Your task to perform on an android device: set default search engine in the chrome app Image 0: 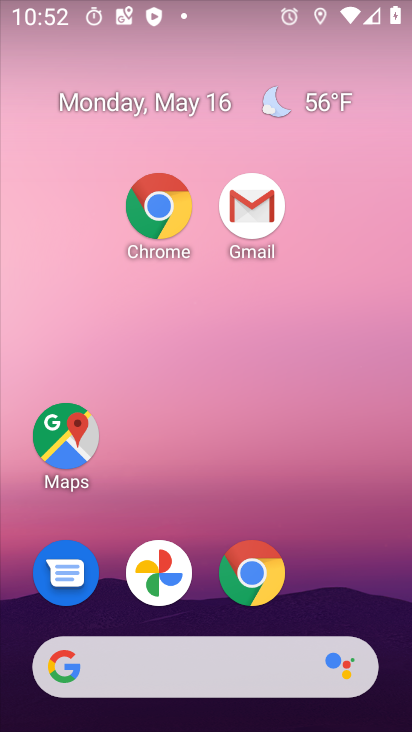
Step 0: drag from (315, 617) to (119, 198)
Your task to perform on an android device: set default search engine in the chrome app Image 1: 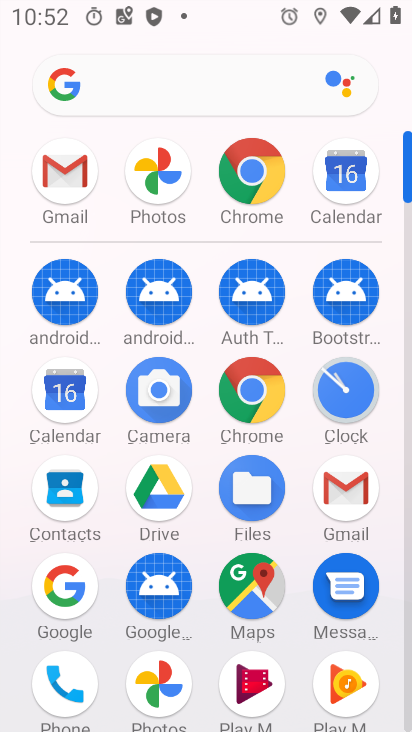
Step 1: click (252, 166)
Your task to perform on an android device: set default search engine in the chrome app Image 2: 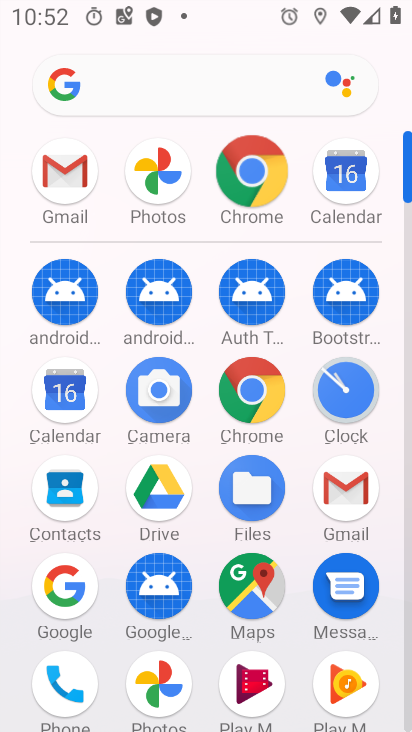
Step 2: click (252, 165)
Your task to perform on an android device: set default search engine in the chrome app Image 3: 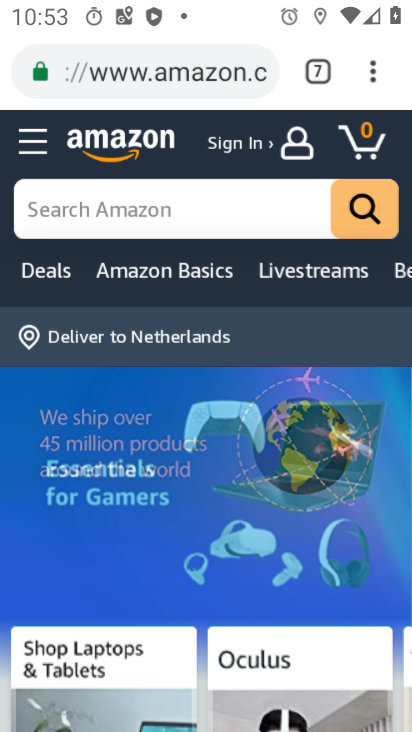
Step 3: drag from (366, 76) to (134, 570)
Your task to perform on an android device: set default search engine in the chrome app Image 4: 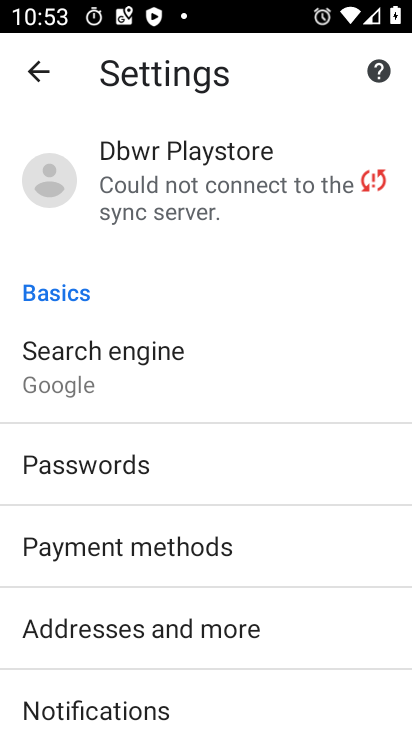
Step 4: drag from (126, 554) to (58, 149)
Your task to perform on an android device: set default search engine in the chrome app Image 5: 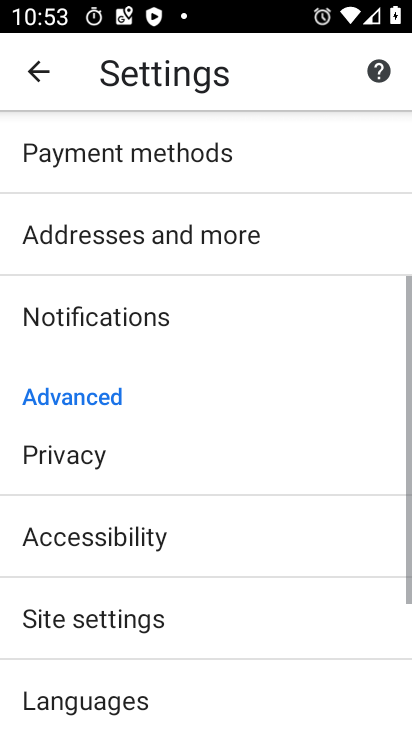
Step 5: drag from (102, 466) to (88, 84)
Your task to perform on an android device: set default search engine in the chrome app Image 6: 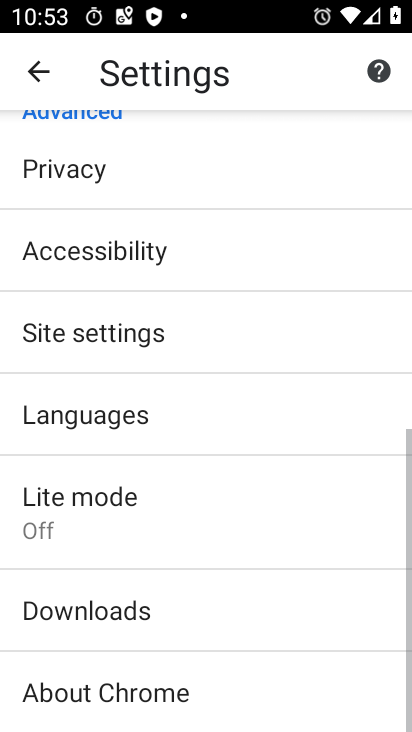
Step 6: drag from (195, 550) to (148, 160)
Your task to perform on an android device: set default search engine in the chrome app Image 7: 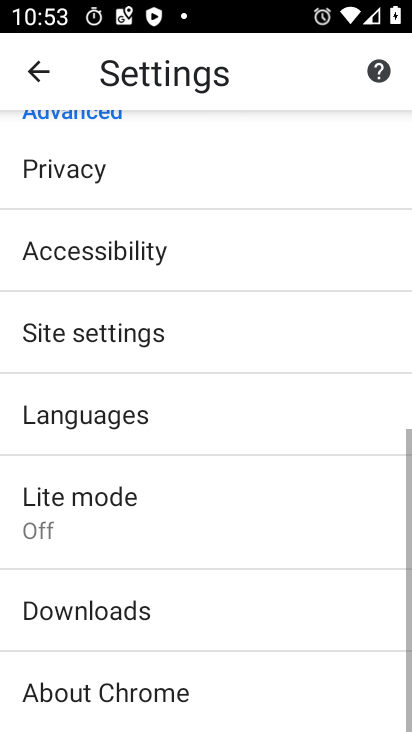
Step 7: drag from (163, 309) to (191, 102)
Your task to perform on an android device: set default search engine in the chrome app Image 8: 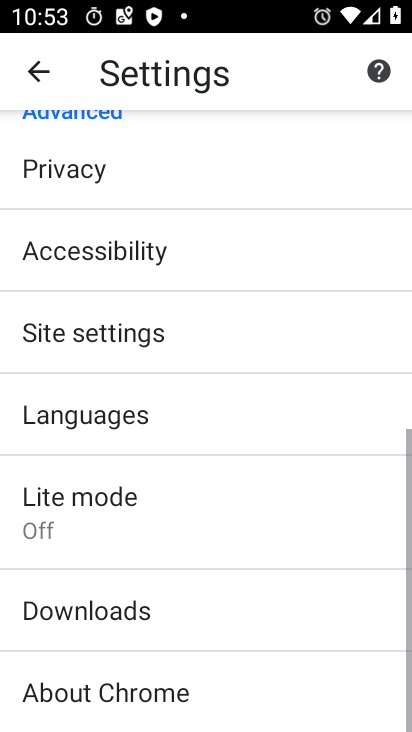
Step 8: drag from (79, 257) to (124, 138)
Your task to perform on an android device: set default search engine in the chrome app Image 9: 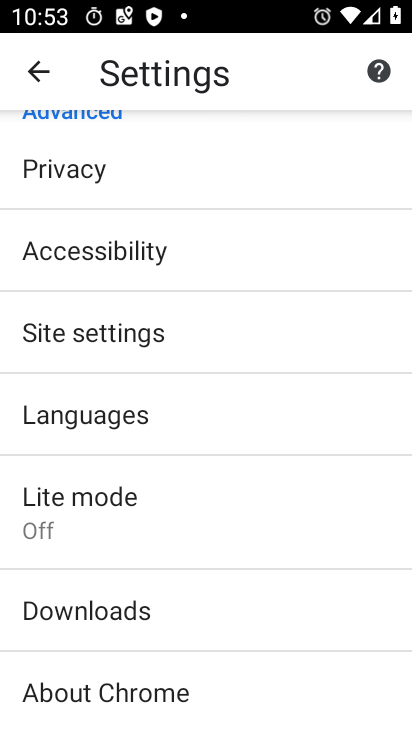
Step 9: click (70, 332)
Your task to perform on an android device: set default search engine in the chrome app Image 10: 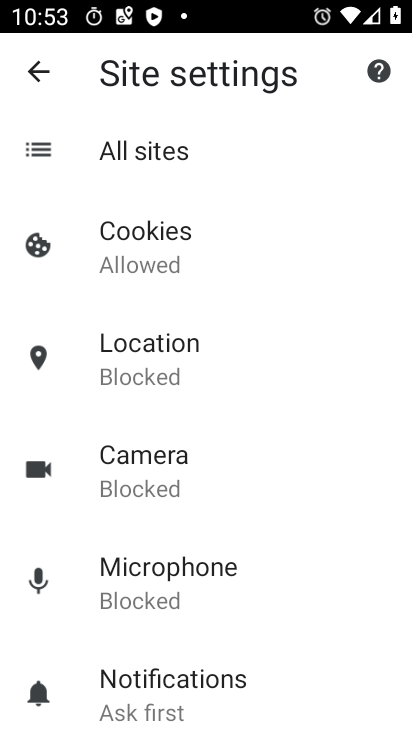
Step 10: click (39, 51)
Your task to perform on an android device: set default search engine in the chrome app Image 11: 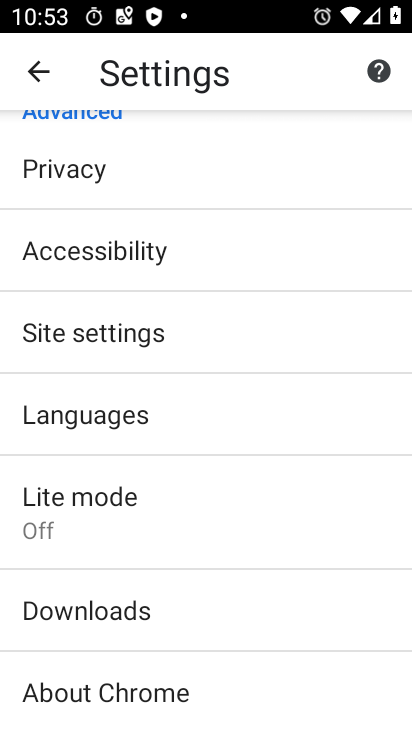
Step 11: drag from (75, 196) to (59, 684)
Your task to perform on an android device: set default search engine in the chrome app Image 12: 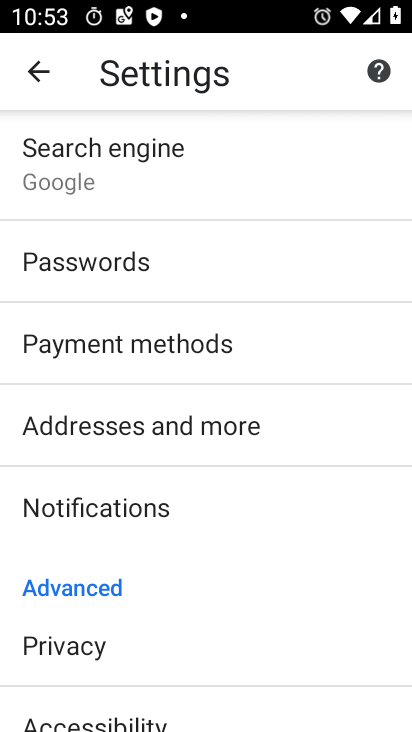
Step 12: click (67, 155)
Your task to perform on an android device: set default search engine in the chrome app Image 13: 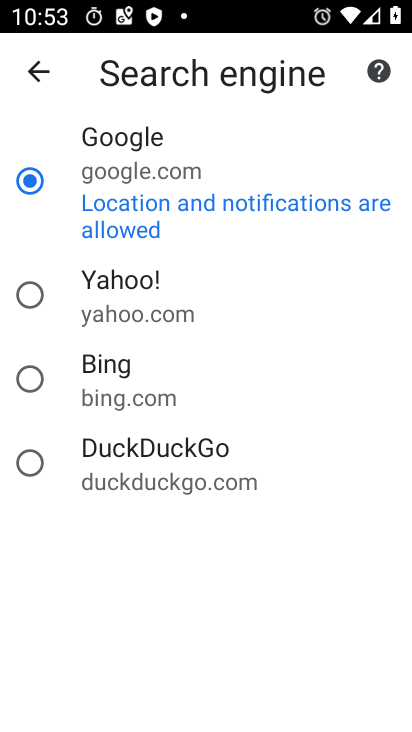
Step 13: click (22, 293)
Your task to perform on an android device: set default search engine in the chrome app Image 14: 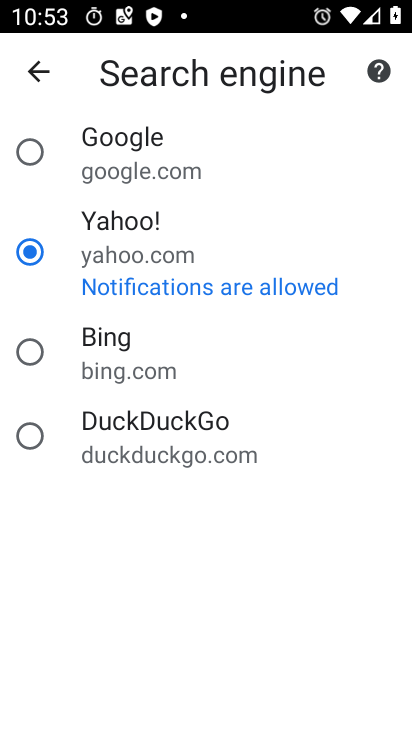
Step 14: task complete